Your task to perform on an android device: Open the stopwatch Image 0: 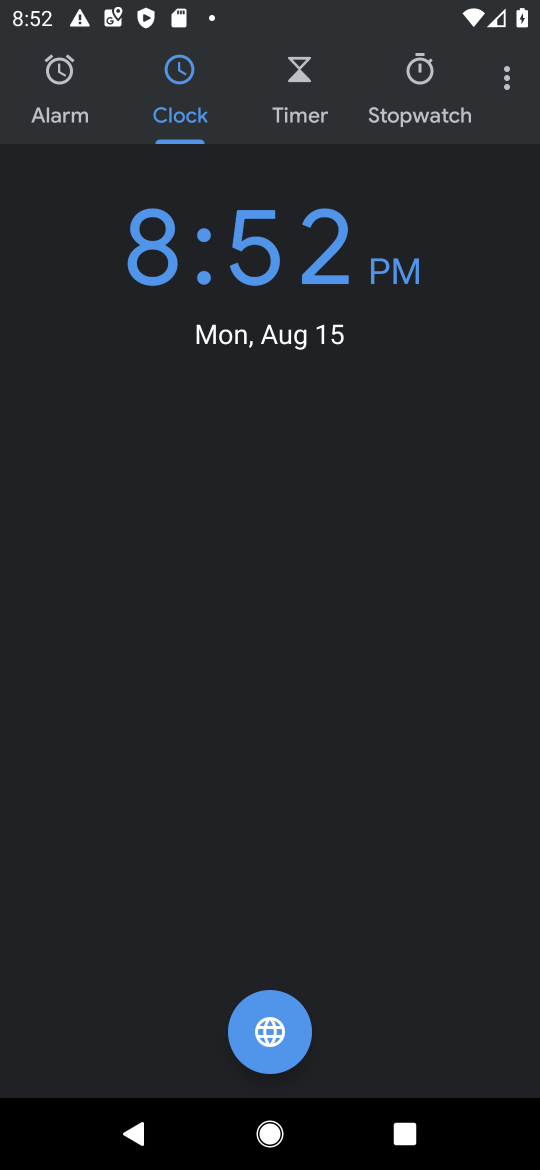
Step 0: click (423, 84)
Your task to perform on an android device: Open the stopwatch Image 1: 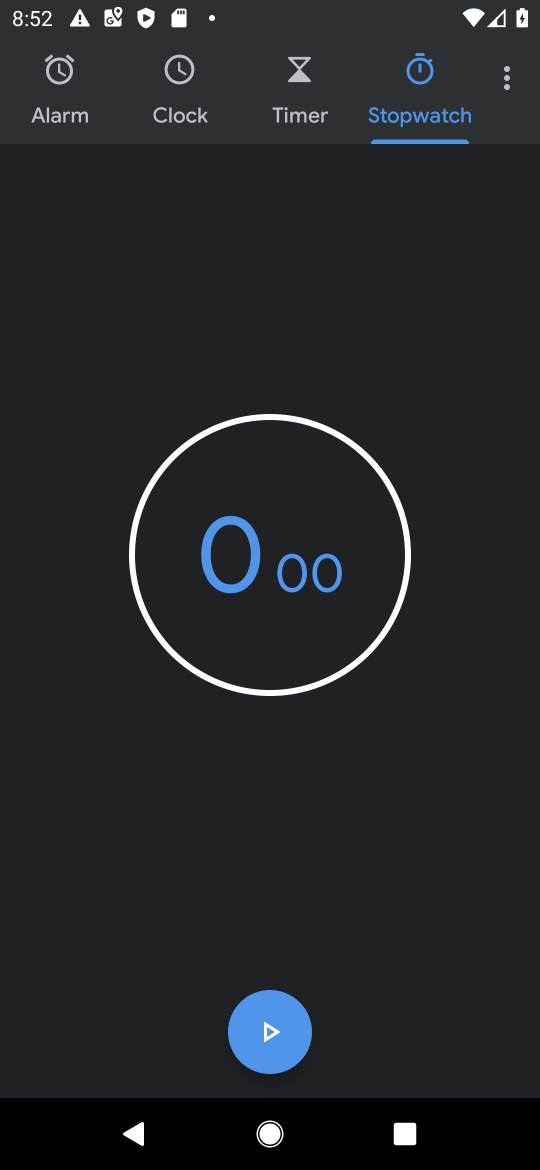
Step 1: task complete